Your task to perform on an android device: Go to Google maps Image 0: 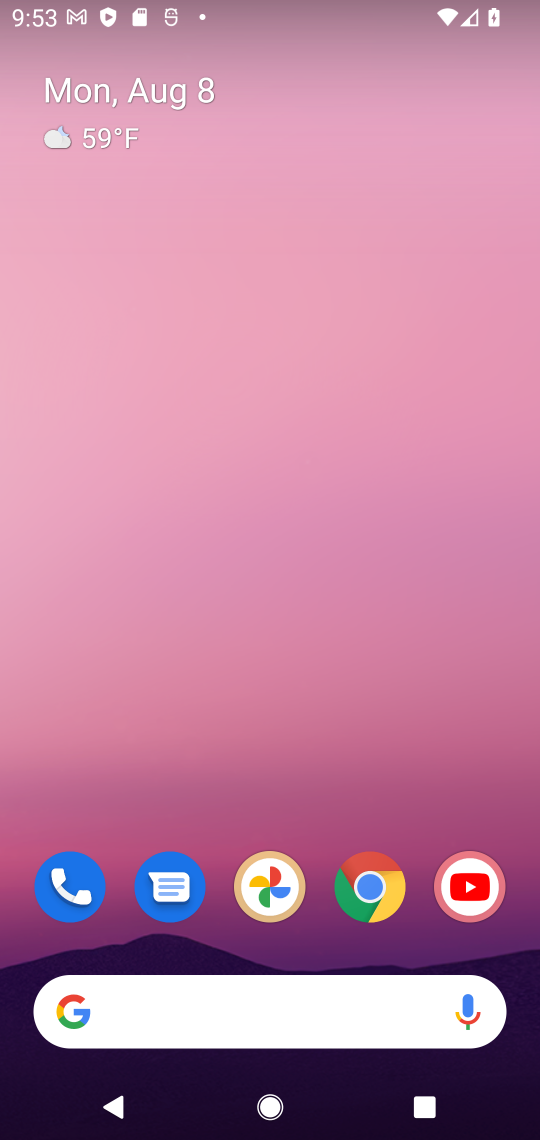
Step 0: drag from (417, 817) to (398, 52)
Your task to perform on an android device: Go to Google maps Image 1: 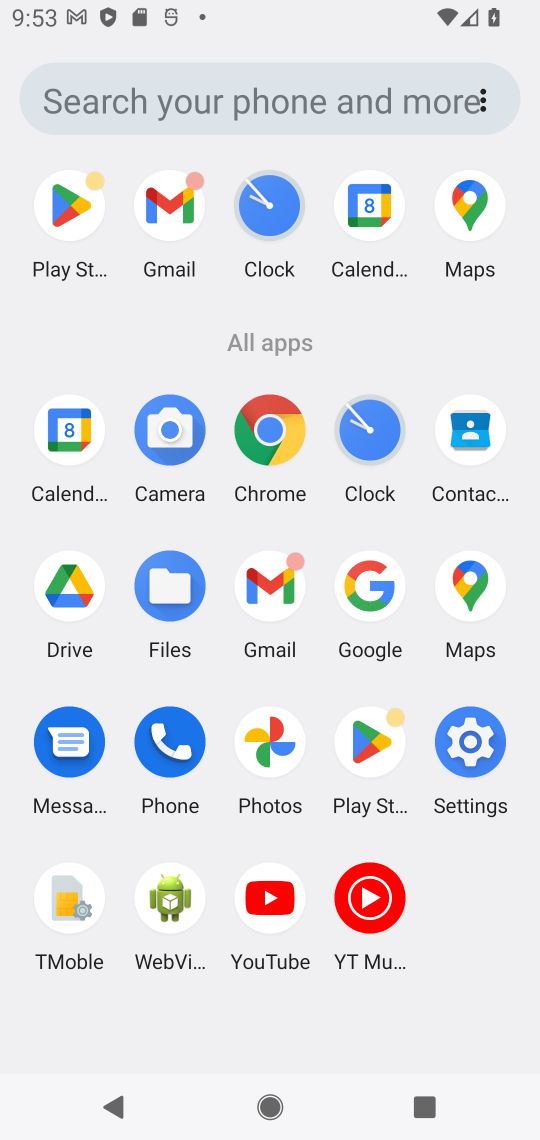
Step 1: click (492, 584)
Your task to perform on an android device: Go to Google maps Image 2: 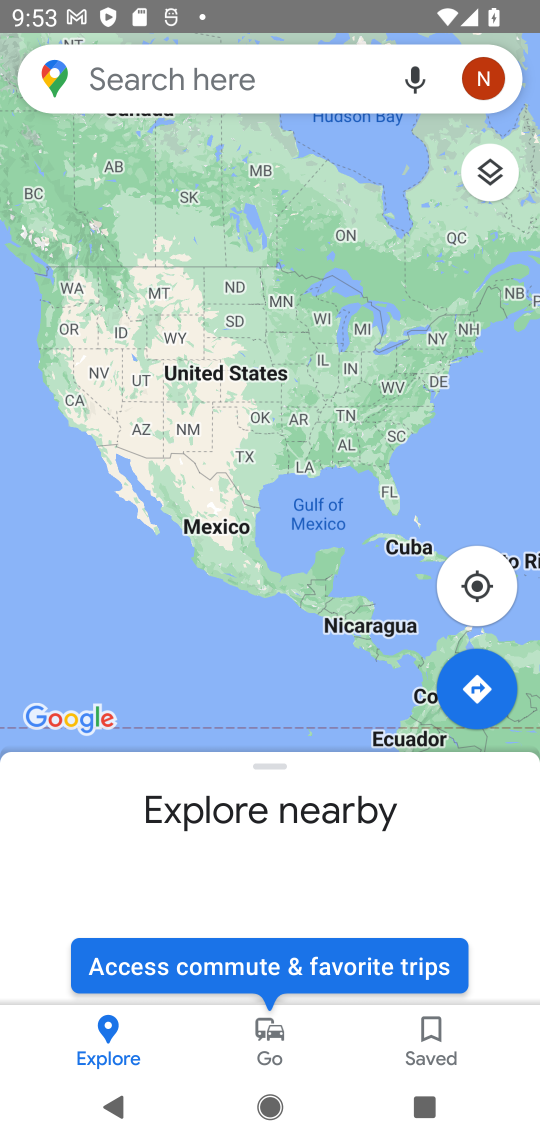
Step 2: task complete